Your task to perform on an android device: Open Yahoo.com Image 0: 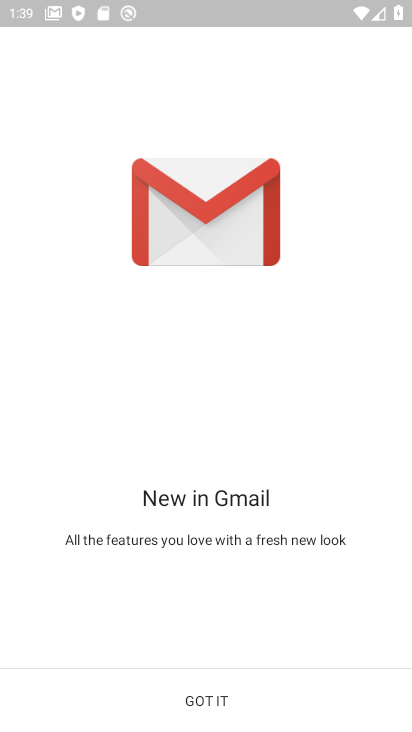
Step 0: press home button
Your task to perform on an android device: Open Yahoo.com Image 1: 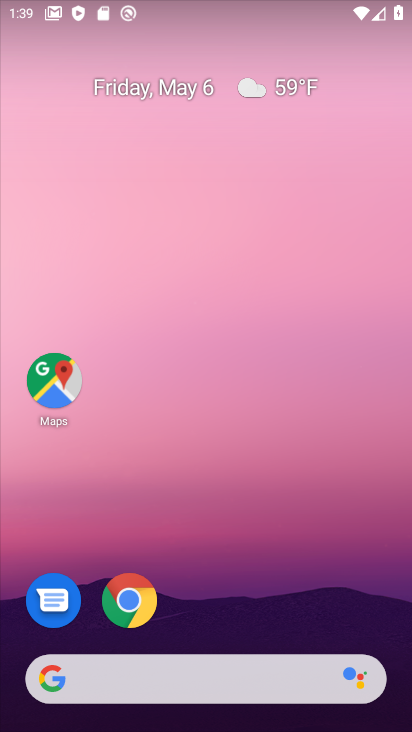
Step 1: click (127, 600)
Your task to perform on an android device: Open Yahoo.com Image 2: 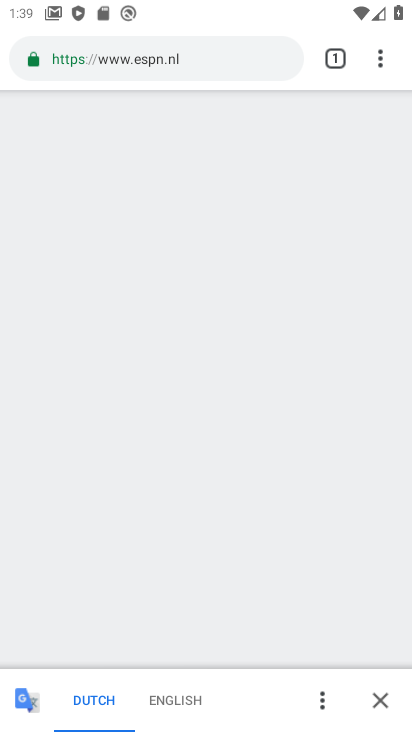
Step 2: press back button
Your task to perform on an android device: Open Yahoo.com Image 3: 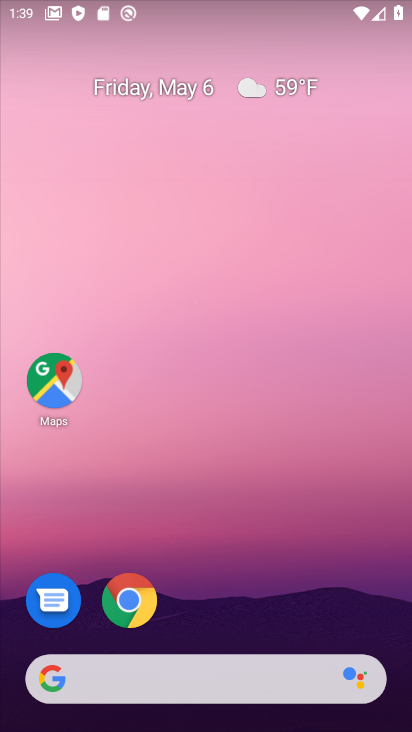
Step 3: click (129, 593)
Your task to perform on an android device: Open Yahoo.com Image 4: 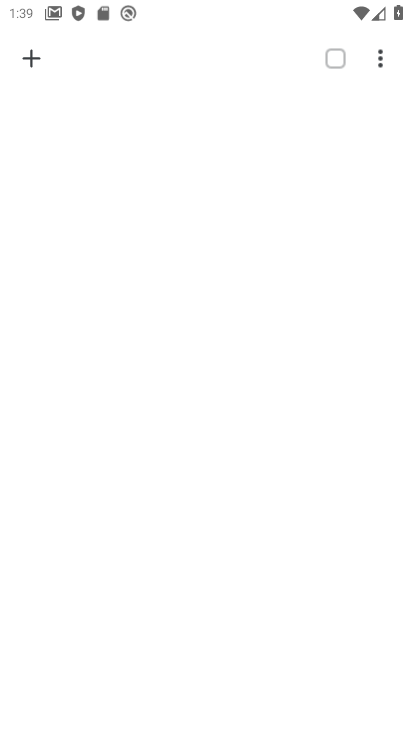
Step 4: click (31, 61)
Your task to perform on an android device: Open Yahoo.com Image 5: 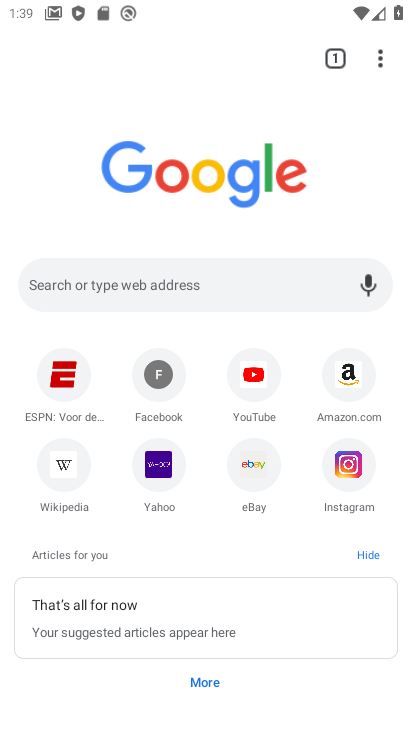
Step 5: click (168, 469)
Your task to perform on an android device: Open Yahoo.com Image 6: 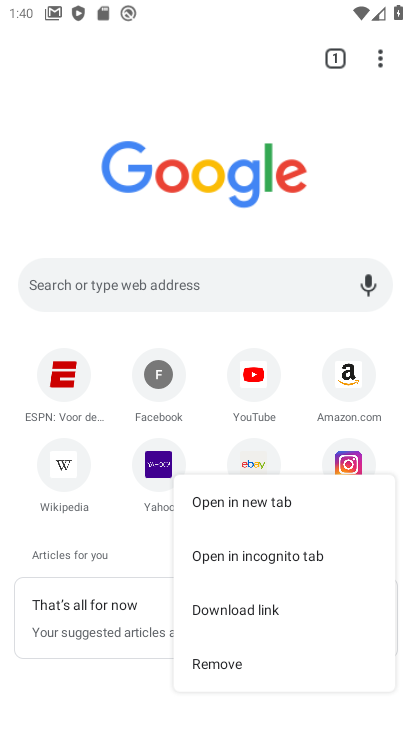
Step 6: click (157, 478)
Your task to perform on an android device: Open Yahoo.com Image 7: 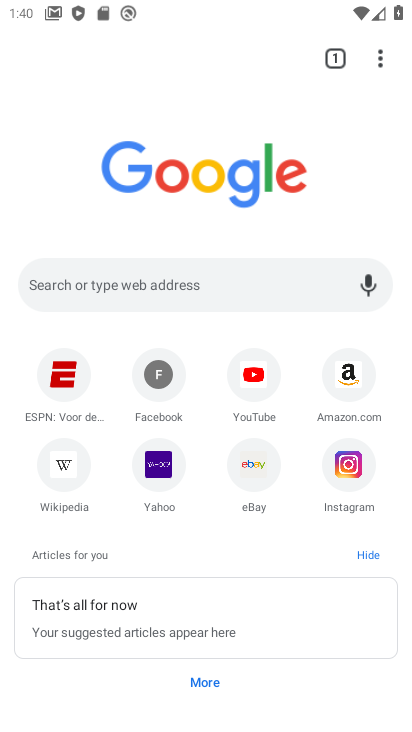
Step 7: click (161, 458)
Your task to perform on an android device: Open Yahoo.com Image 8: 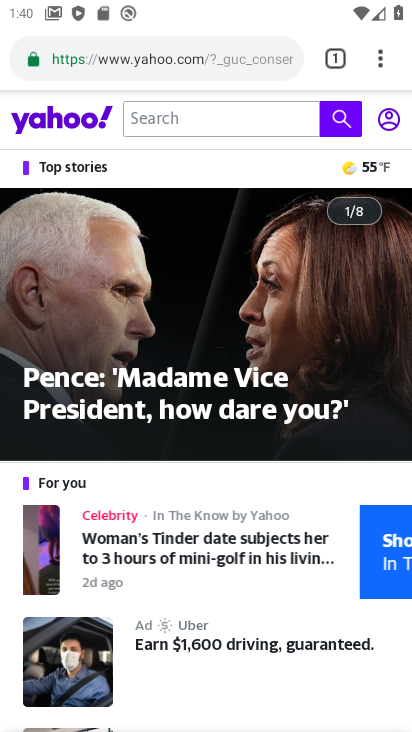
Step 8: task complete